Your task to perform on an android device: Open Google Maps and go to "Timeline" Image 0: 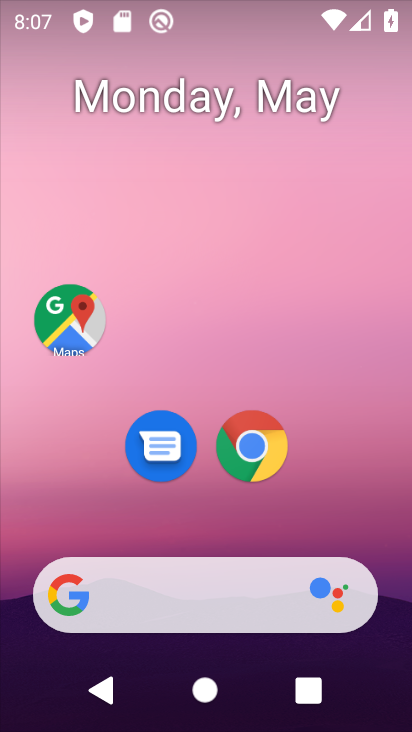
Step 0: drag from (310, 534) to (285, 408)
Your task to perform on an android device: Open Google Maps and go to "Timeline" Image 1: 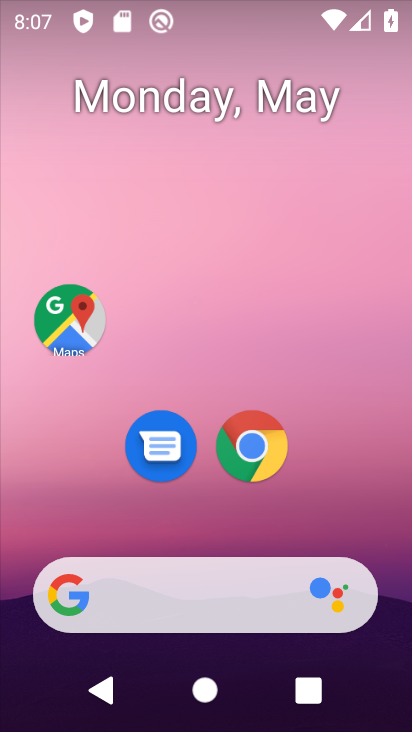
Step 1: click (85, 325)
Your task to perform on an android device: Open Google Maps and go to "Timeline" Image 2: 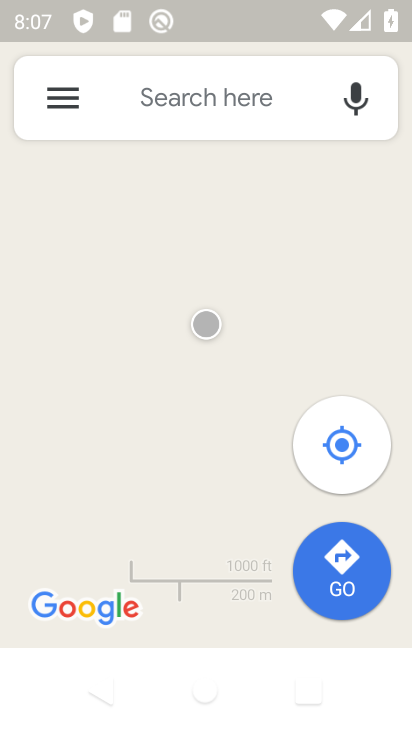
Step 2: click (78, 89)
Your task to perform on an android device: Open Google Maps and go to "Timeline" Image 3: 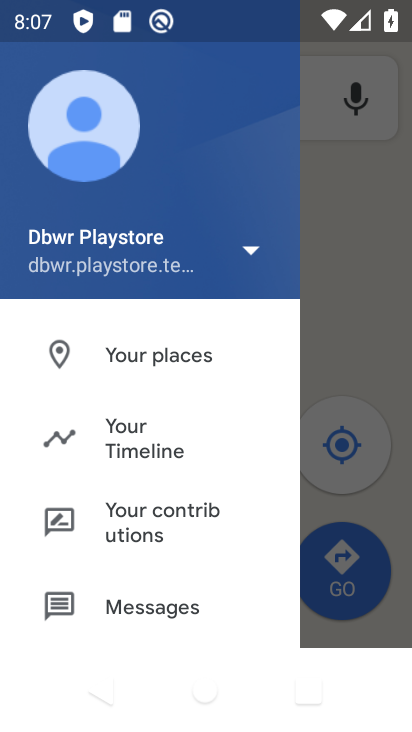
Step 3: click (120, 453)
Your task to perform on an android device: Open Google Maps and go to "Timeline" Image 4: 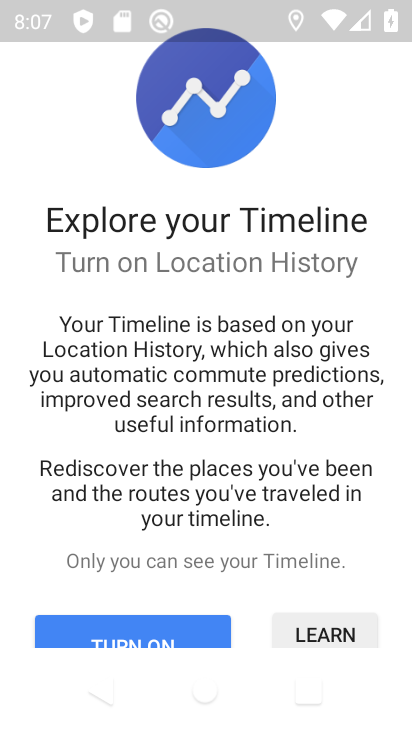
Step 4: click (222, 633)
Your task to perform on an android device: Open Google Maps and go to "Timeline" Image 5: 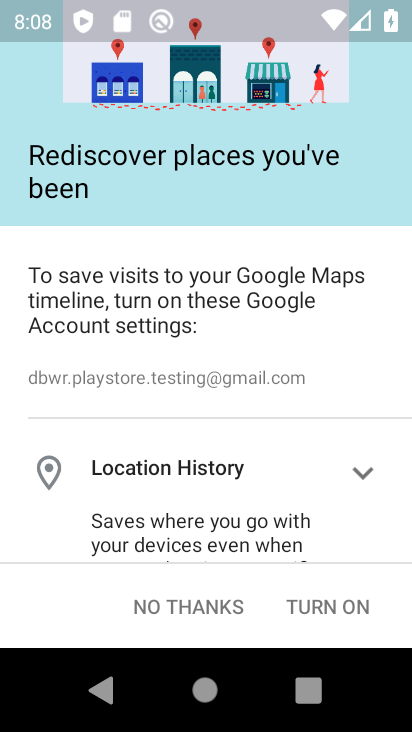
Step 5: click (348, 595)
Your task to perform on an android device: Open Google Maps and go to "Timeline" Image 6: 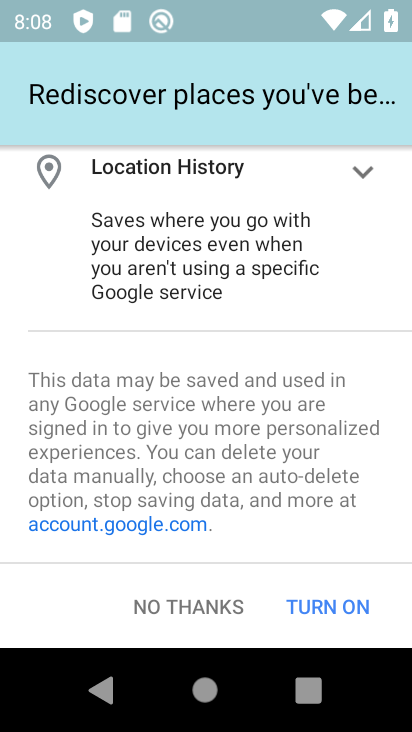
Step 6: click (322, 614)
Your task to perform on an android device: Open Google Maps and go to "Timeline" Image 7: 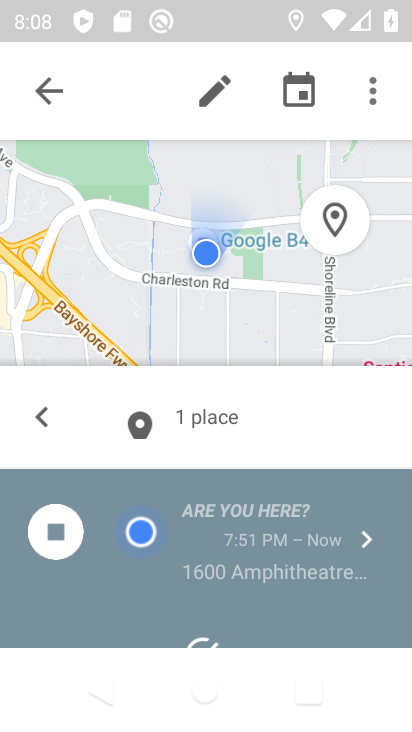
Step 7: task complete